Your task to perform on an android device: star an email in the gmail app Image 0: 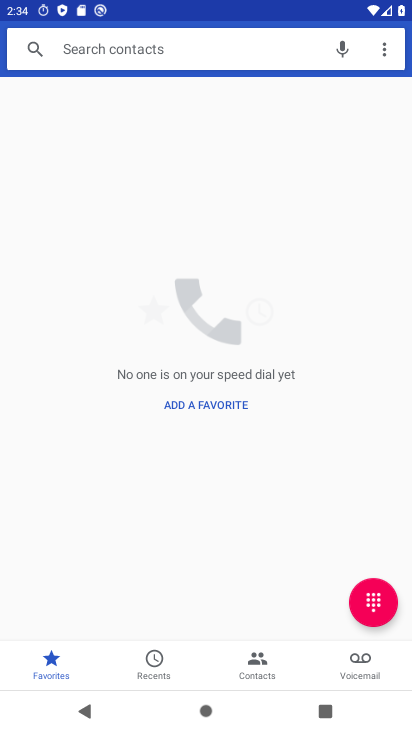
Step 0: press home button
Your task to perform on an android device: star an email in the gmail app Image 1: 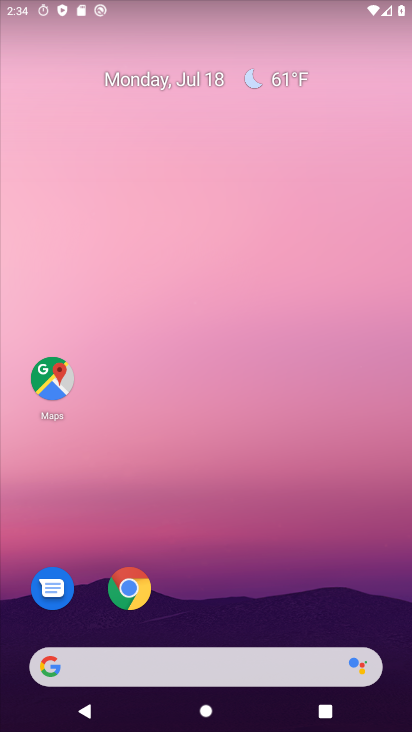
Step 1: drag from (280, 568) to (23, 227)
Your task to perform on an android device: star an email in the gmail app Image 2: 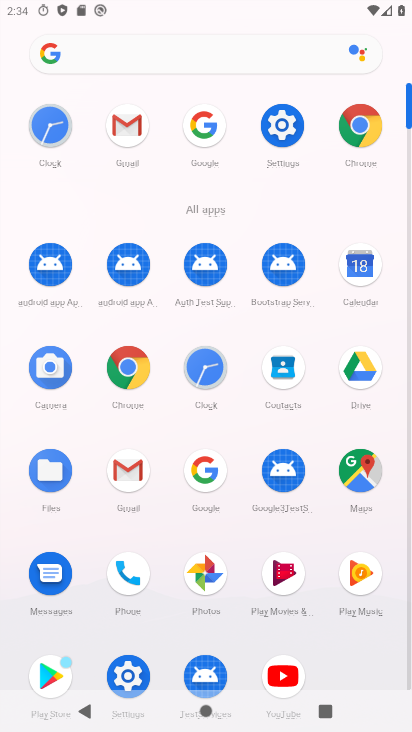
Step 2: click (129, 127)
Your task to perform on an android device: star an email in the gmail app Image 3: 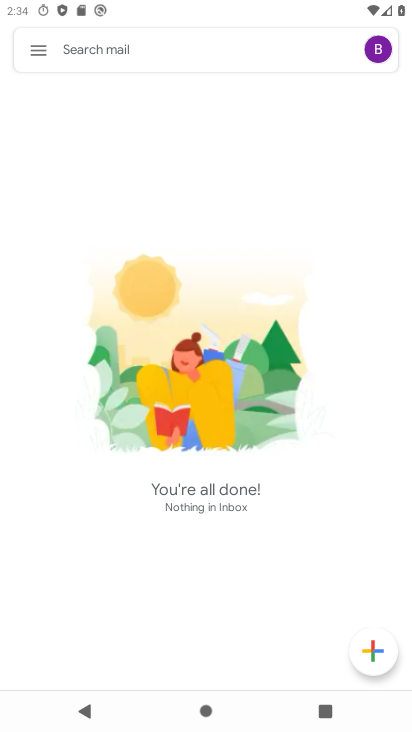
Step 3: task complete